Your task to perform on an android device: Show me the alarms in the clock app Image 0: 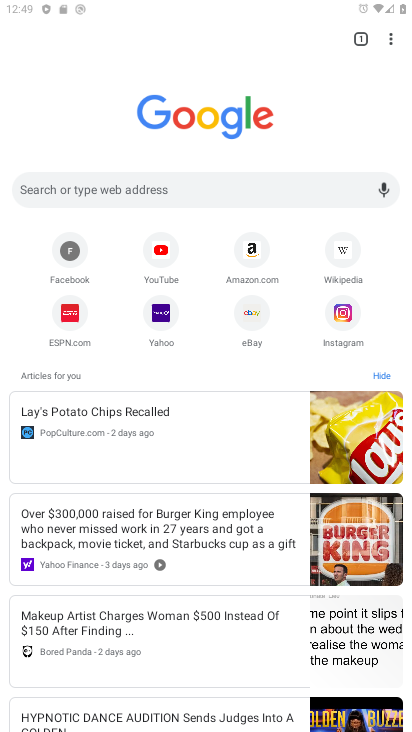
Step 0: drag from (97, 505) to (212, 7)
Your task to perform on an android device: Show me the alarms in the clock app Image 1: 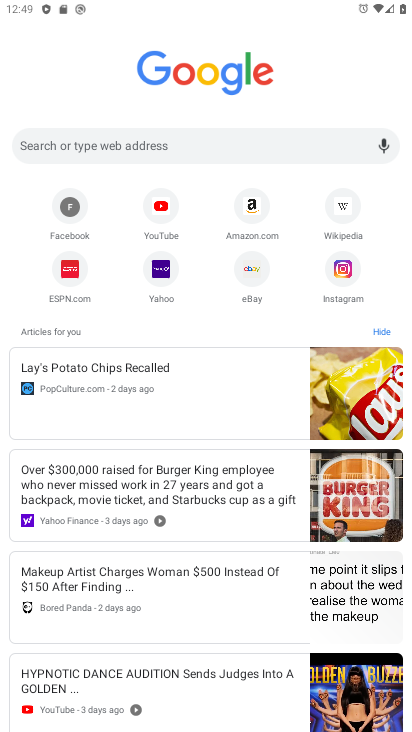
Step 1: drag from (13, 725) to (287, 26)
Your task to perform on an android device: Show me the alarms in the clock app Image 2: 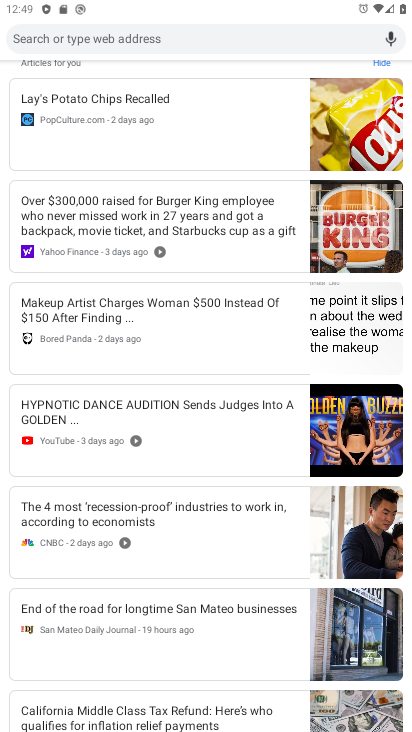
Step 2: drag from (44, 717) to (220, 211)
Your task to perform on an android device: Show me the alarms in the clock app Image 3: 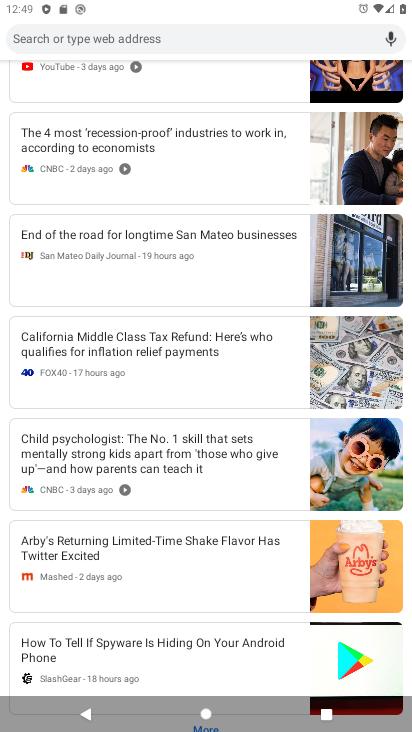
Step 3: drag from (61, 688) to (209, 44)
Your task to perform on an android device: Show me the alarms in the clock app Image 4: 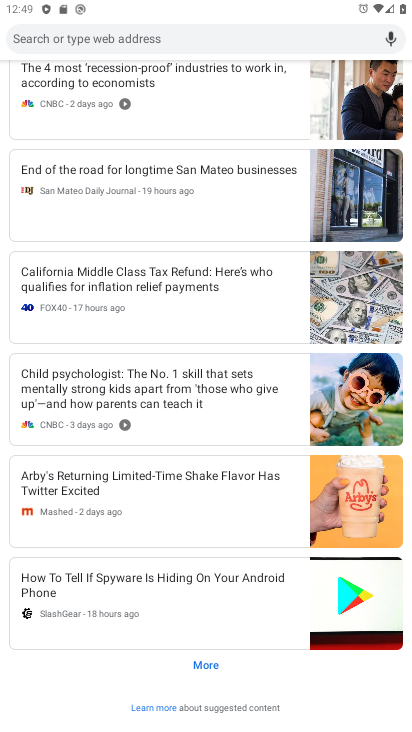
Step 4: press home button
Your task to perform on an android device: Show me the alarms in the clock app Image 5: 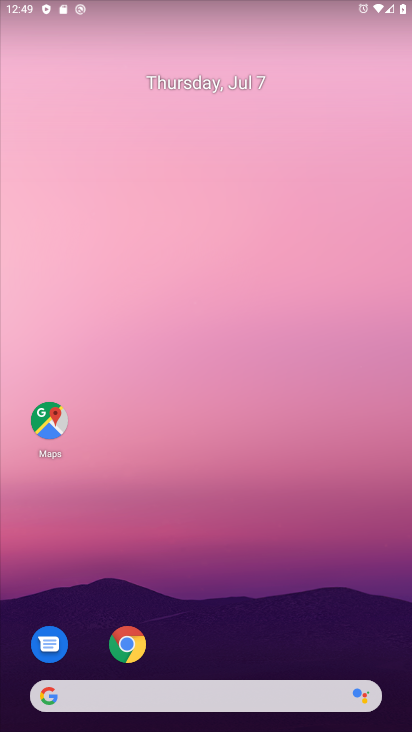
Step 5: drag from (107, 462) to (159, 124)
Your task to perform on an android device: Show me the alarms in the clock app Image 6: 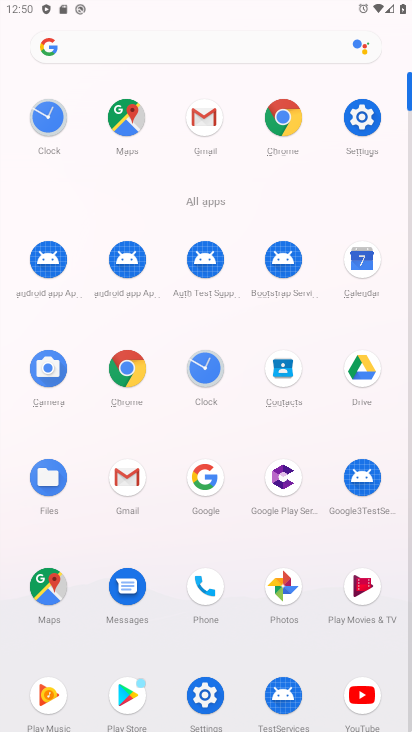
Step 6: click (205, 350)
Your task to perform on an android device: Show me the alarms in the clock app Image 7: 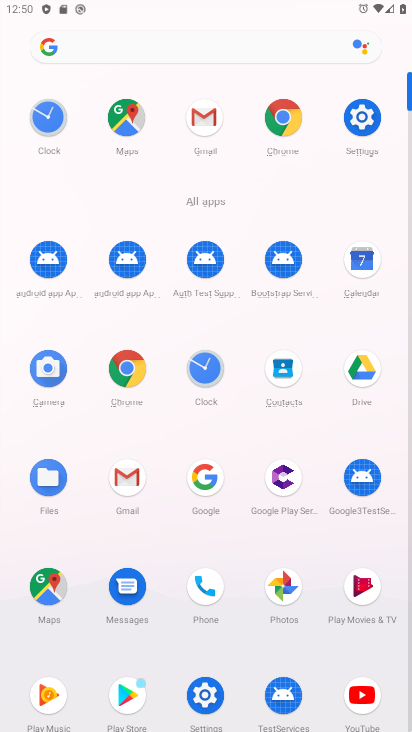
Step 7: click (205, 350)
Your task to perform on an android device: Show me the alarms in the clock app Image 8: 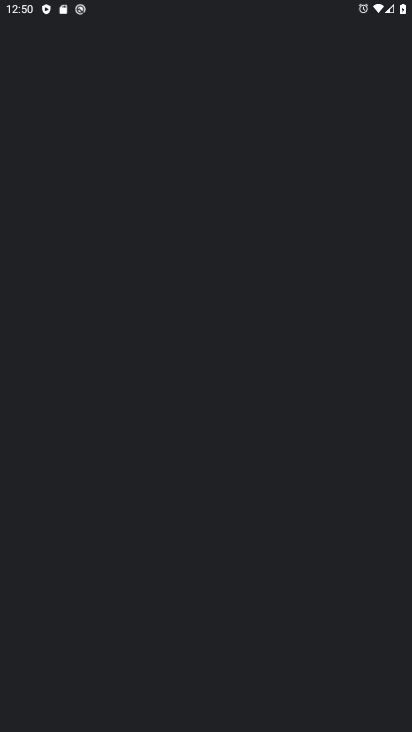
Step 8: click (200, 376)
Your task to perform on an android device: Show me the alarms in the clock app Image 9: 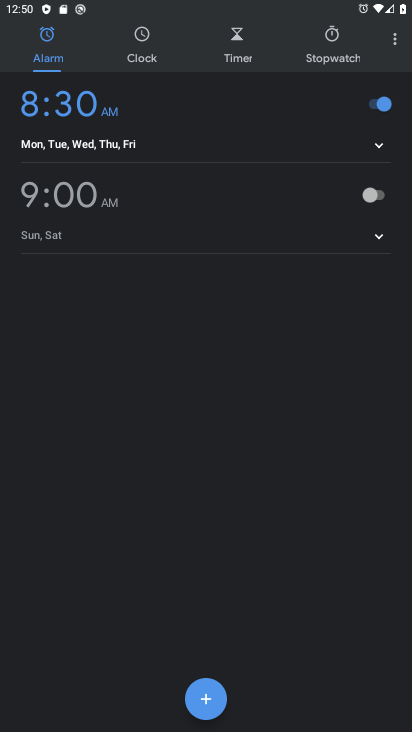
Step 9: task complete